Your task to perform on an android device: open app "Google Maps" Image 0: 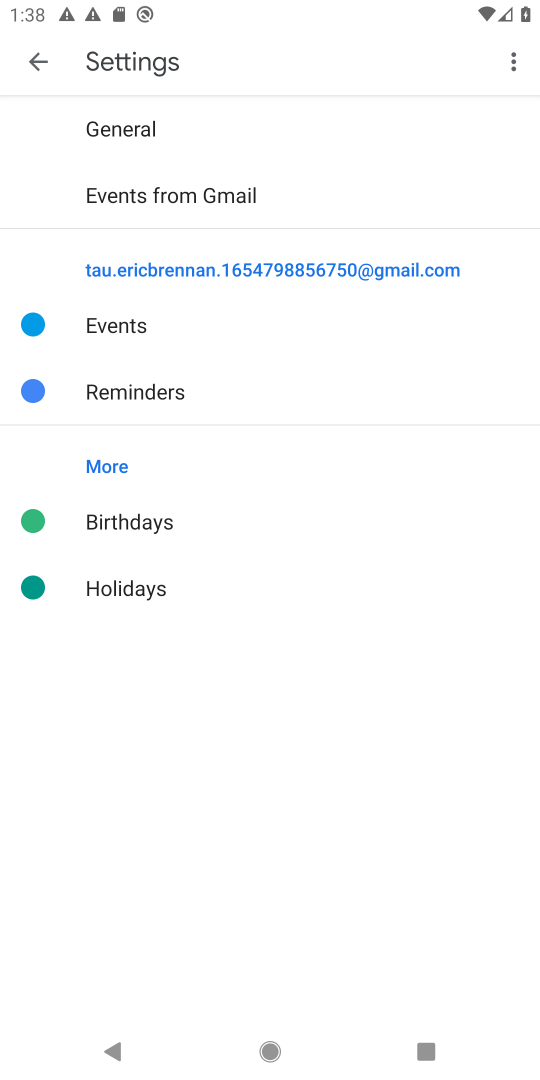
Step 0: press home button
Your task to perform on an android device: open app "Google Maps" Image 1: 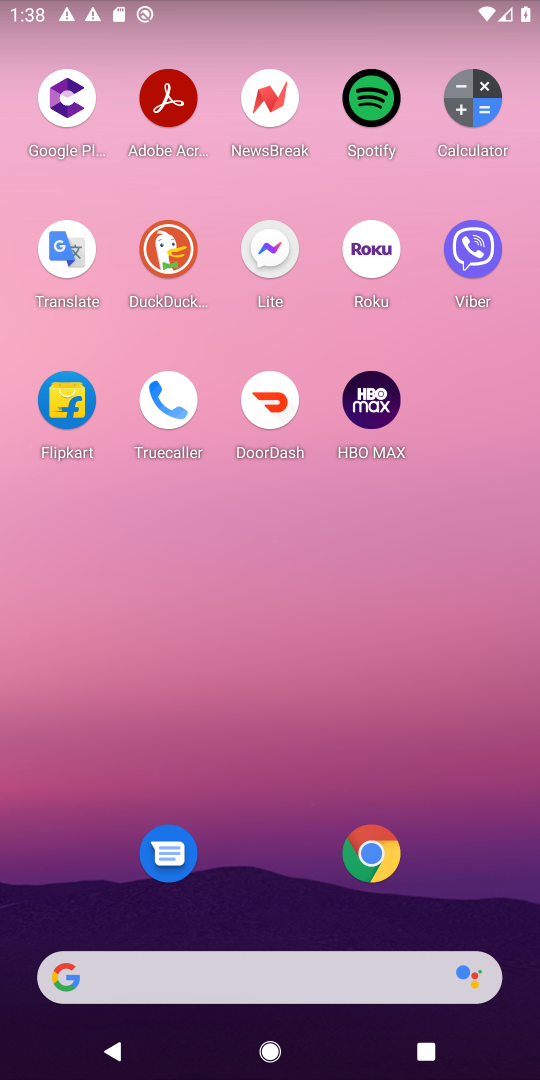
Step 1: drag from (321, 958) to (388, 412)
Your task to perform on an android device: open app "Google Maps" Image 2: 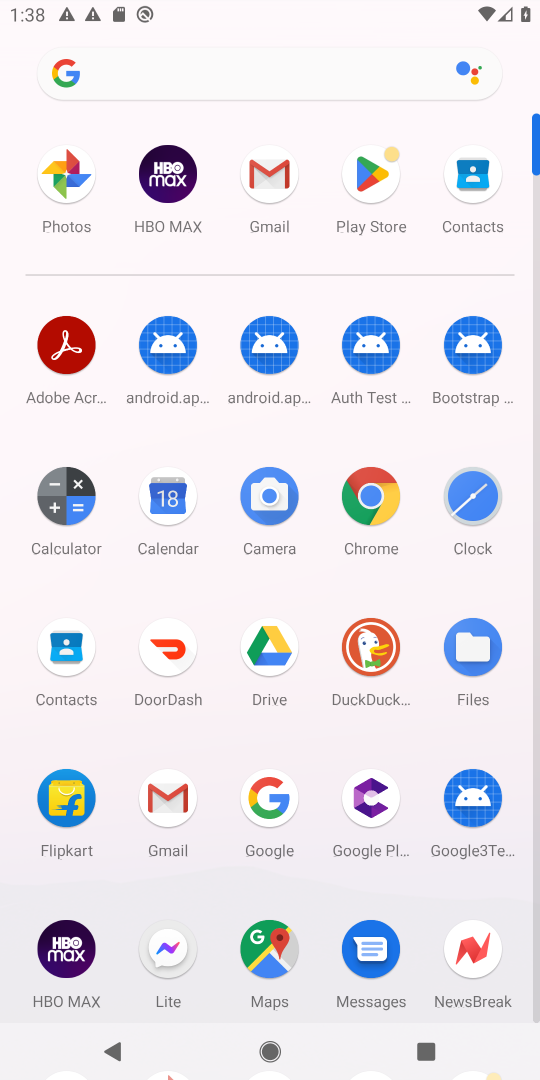
Step 2: click (259, 939)
Your task to perform on an android device: open app "Google Maps" Image 3: 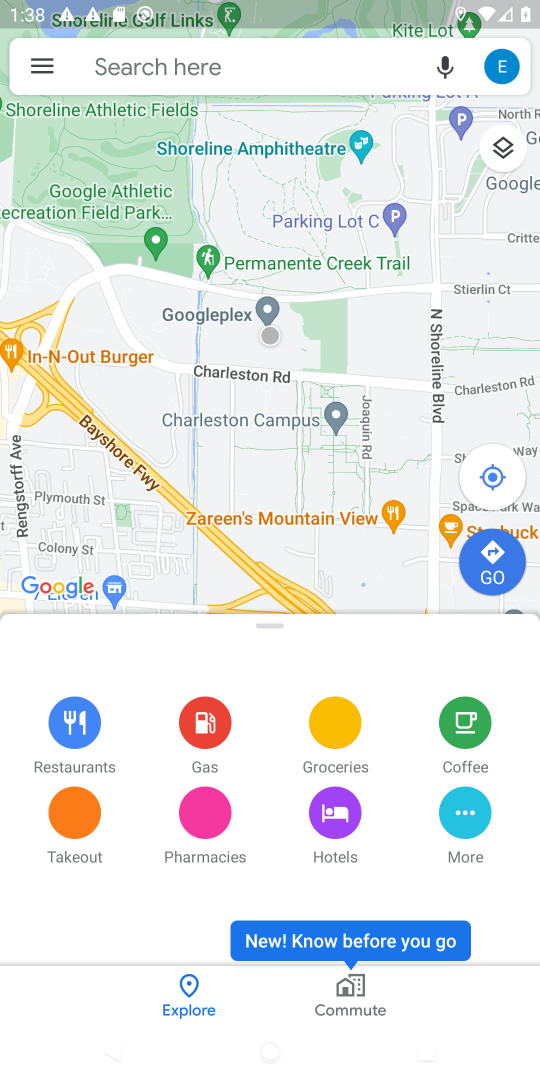
Step 3: task complete